Your task to perform on an android device: turn off translation in the chrome app Image 0: 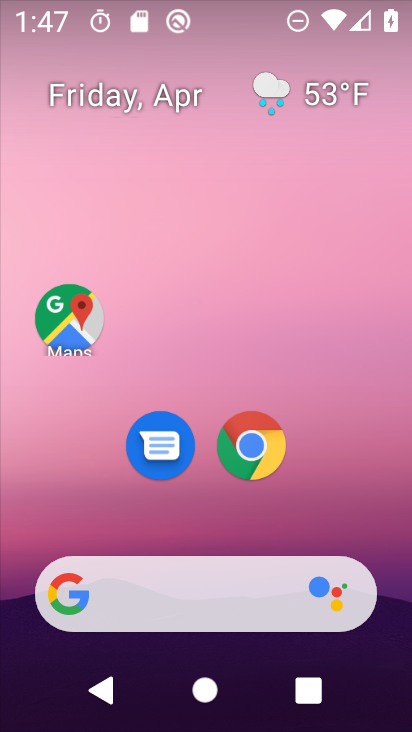
Step 0: drag from (362, 518) to (382, 138)
Your task to perform on an android device: turn off translation in the chrome app Image 1: 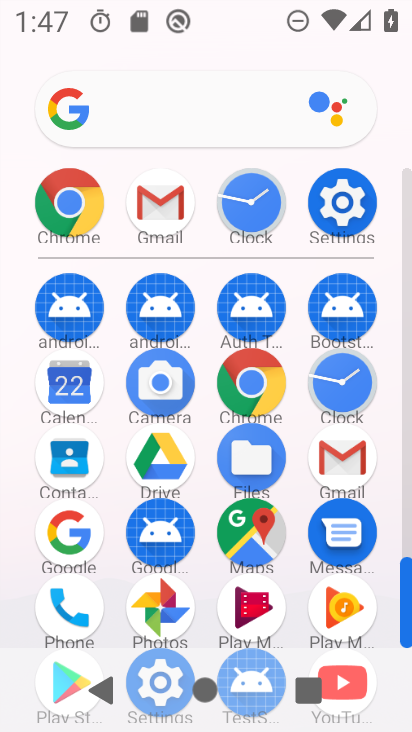
Step 1: click (226, 368)
Your task to perform on an android device: turn off translation in the chrome app Image 2: 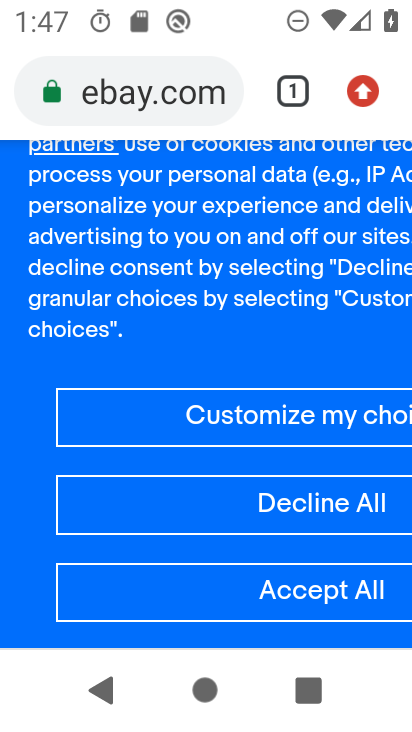
Step 2: click (371, 91)
Your task to perform on an android device: turn off translation in the chrome app Image 3: 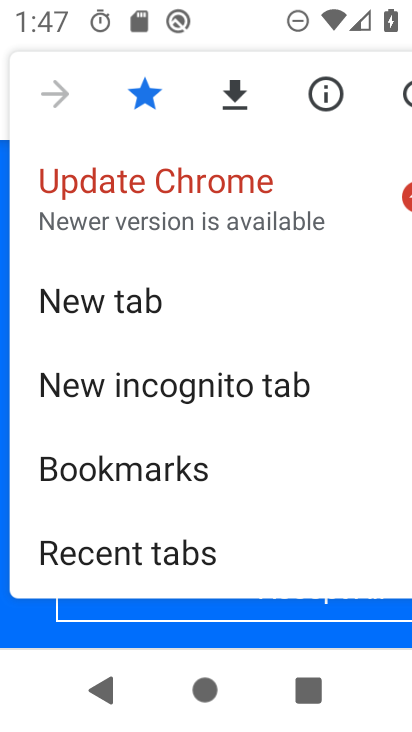
Step 3: drag from (355, 482) to (369, 321)
Your task to perform on an android device: turn off translation in the chrome app Image 4: 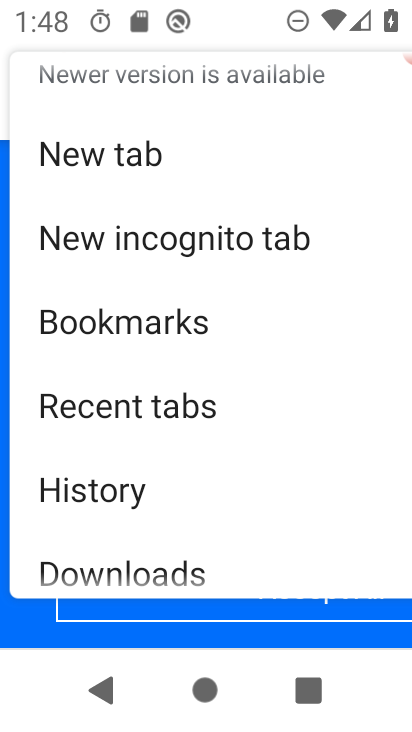
Step 4: drag from (334, 485) to (349, 326)
Your task to perform on an android device: turn off translation in the chrome app Image 5: 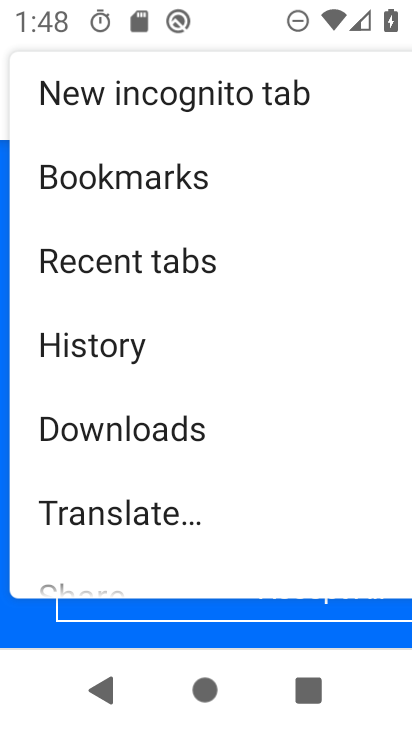
Step 5: drag from (297, 518) to (297, 317)
Your task to perform on an android device: turn off translation in the chrome app Image 6: 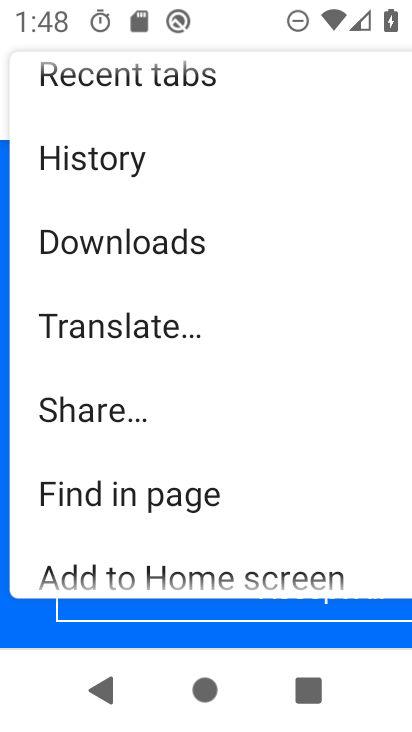
Step 6: drag from (297, 506) to (309, 343)
Your task to perform on an android device: turn off translation in the chrome app Image 7: 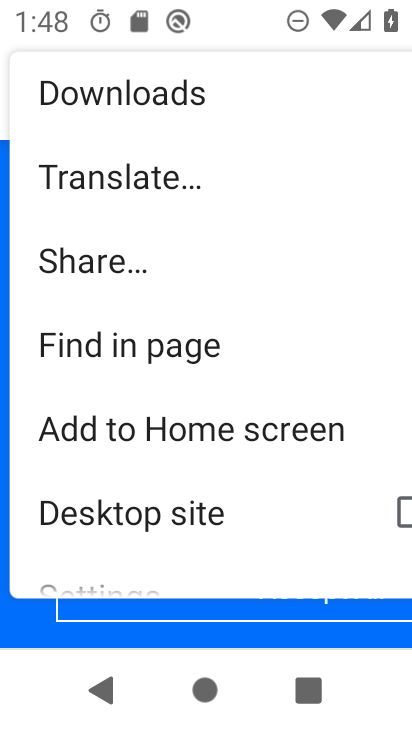
Step 7: drag from (320, 507) to (326, 342)
Your task to perform on an android device: turn off translation in the chrome app Image 8: 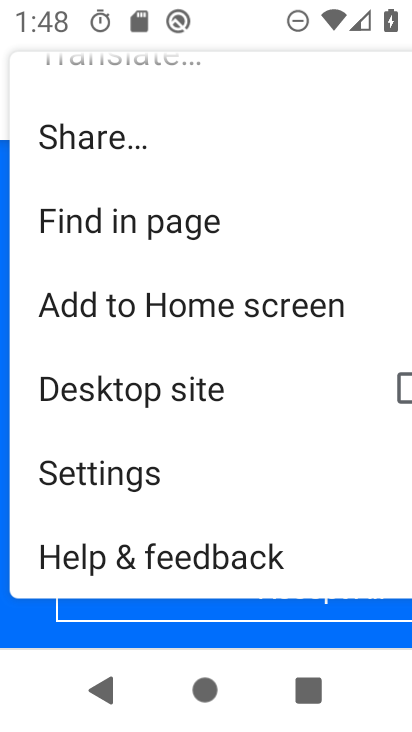
Step 8: click (177, 471)
Your task to perform on an android device: turn off translation in the chrome app Image 9: 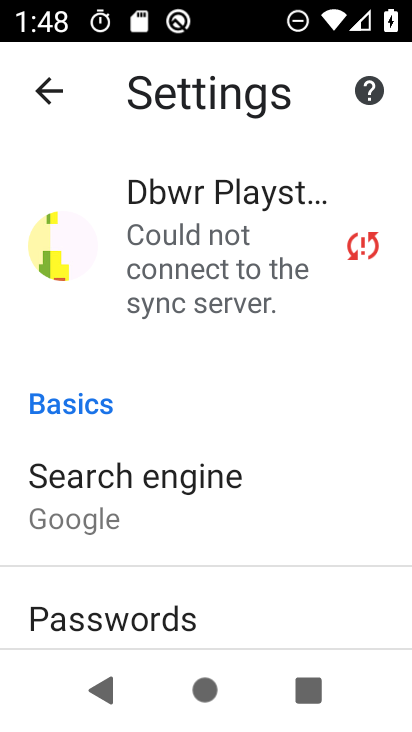
Step 9: drag from (310, 597) to (312, 476)
Your task to perform on an android device: turn off translation in the chrome app Image 10: 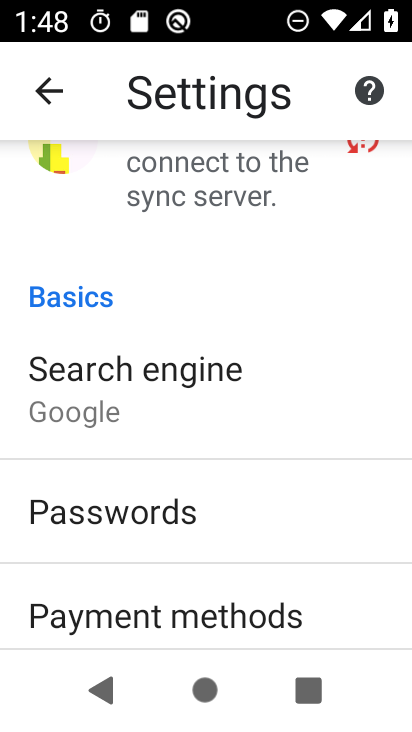
Step 10: drag from (311, 583) to (329, 445)
Your task to perform on an android device: turn off translation in the chrome app Image 11: 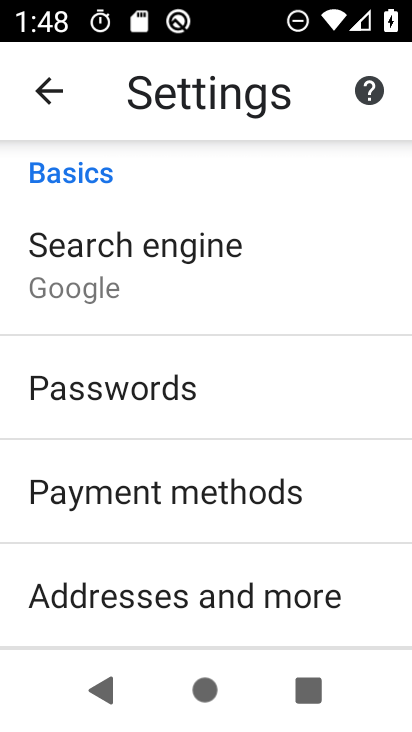
Step 11: drag from (358, 608) to (364, 477)
Your task to perform on an android device: turn off translation in the chrome app Image 12: 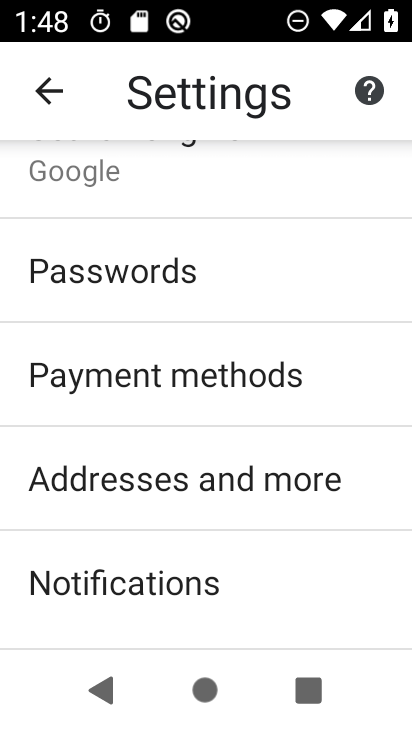
Step 12: drag from (339, 607) to (344, 481)
Your task to perform on an android device: turn off translation in the chrome app Image 13: 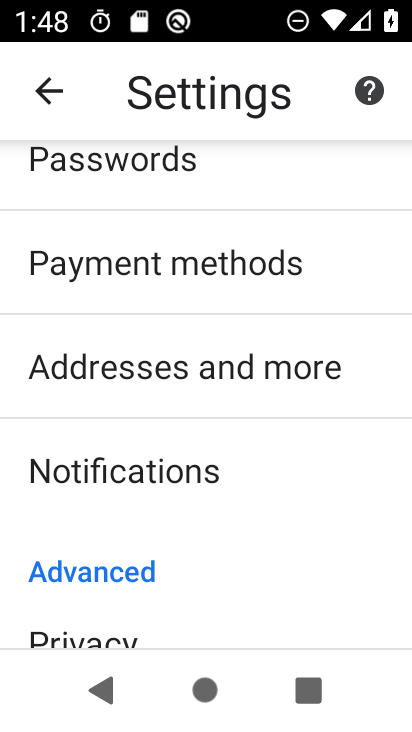
Step 13: drag from (336, 552) to (346, 489)
Your task to perform on an android device: turn off translation in the chrome app Image 14: 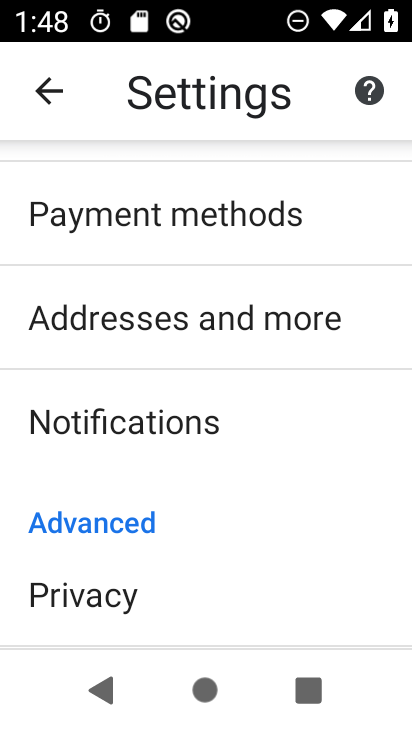
Step 14: drag from (302, 584) to (321, 447)
Your task to perform on an android device: turn off translation in the chrome app Image 15: 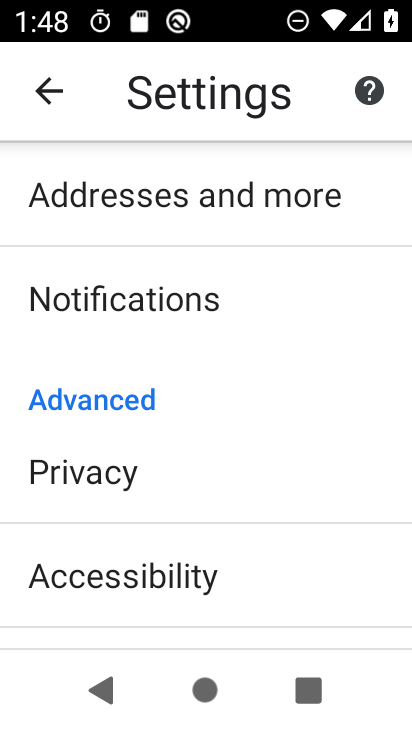
Step 15: drag from (293, 579) to (303, 418)
Your task to perform on an android device: turn off translation in the chrome app Image 16: 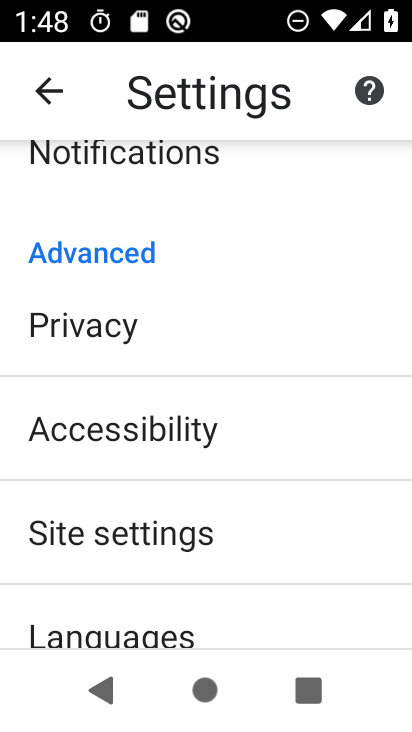
Step 16: drag from (268, 578) to (270, 427)
Your task to perform on an android device: turn off translation in the chrome app Image 17: 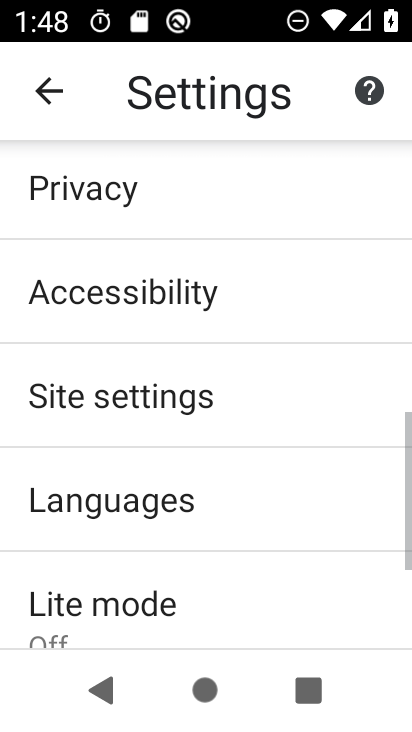
Step 17: click (256, 495)
Your task to perform on an android device: turn off translation in the chrome app Image 18: 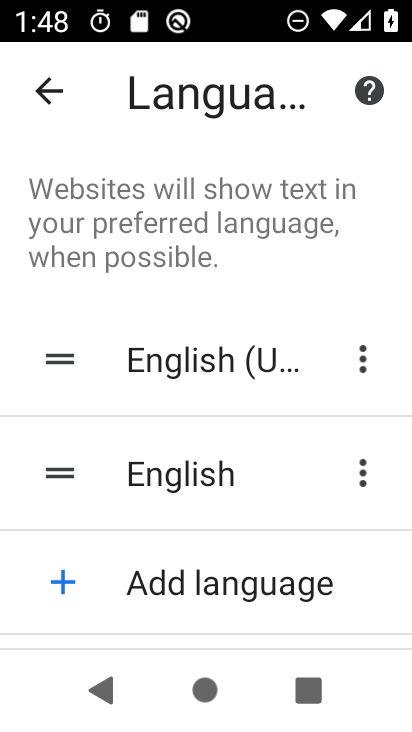
Step 18: drag from (287, 529) to (309, 287)
Your task to perform on an android device: turn off translation in the chrome app Image 19: 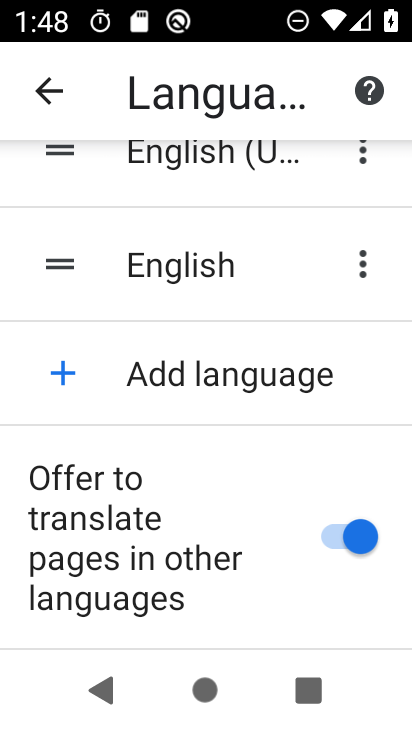
Step 19: click (346, 536)
Your task to perform on an android device: turn off translation in the chrome app Image 20: 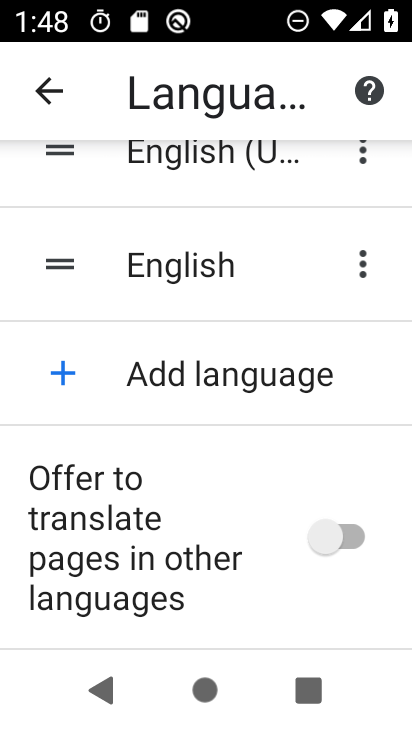
Step 20: task complete